Your task to perform on an android device: turn on the 12-hour format for clock Image 0: 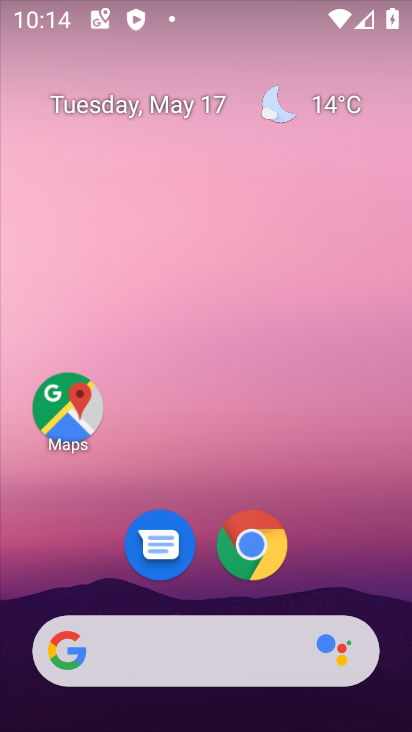
Step 0: drag from (296, 663) to (319, 55)
Your task to perform on an android device: turn on the 12-hour format for clock Image 1: 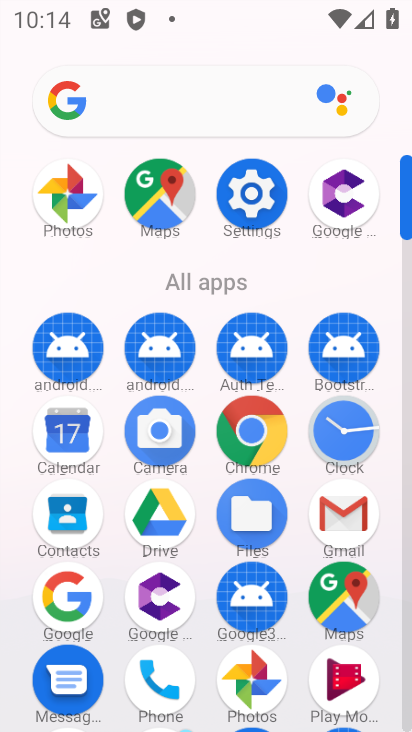
Step 1: click (363, 430)
Your task to perform on an android device: turn on the 12-hour format for clock Image 2: 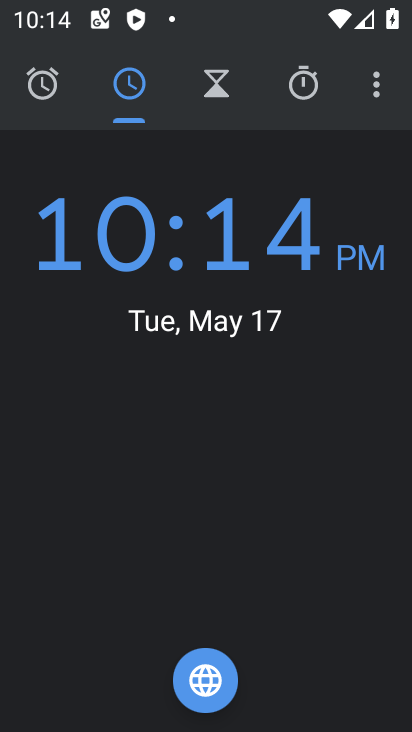
Step 2: click (379, 94)
Your task to perform on an android device: turn on the 12-hour format for clock Image 3: 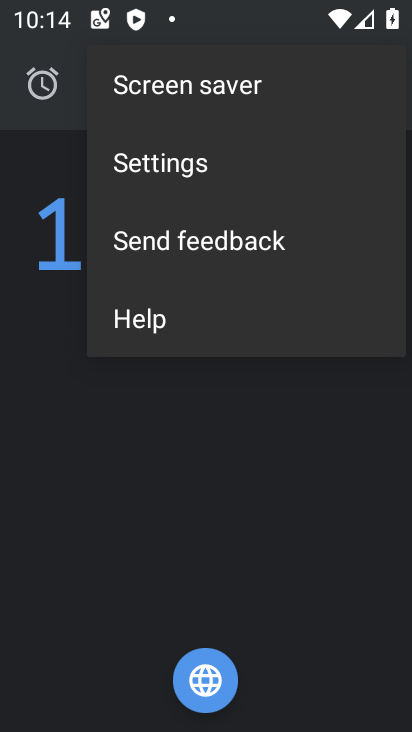
Step 3: click (217, 185)
Your task to perform on an android device: turn on the 12-hour format for clock Image 4: 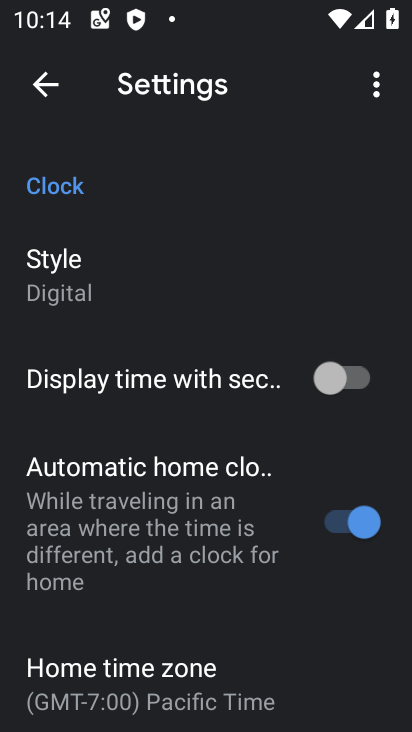
Step 4: drag from (162, 642) to (245, 330)
Your task to perform on an android device: turn on the 12-hour format for clock Image 5: 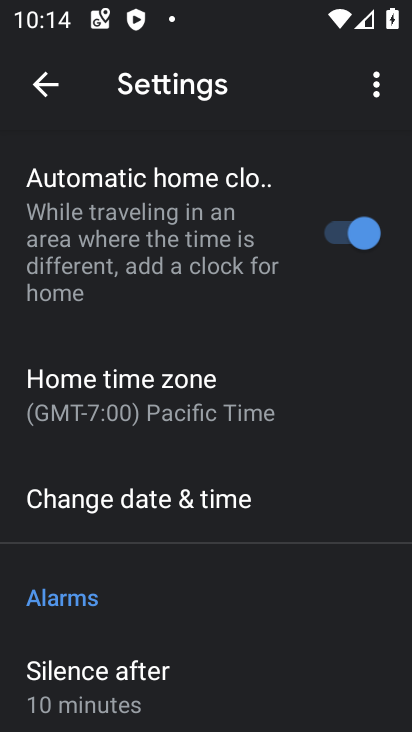
Step 5: click (217, 502)
Your task to perform on an android device: turn on the 12-hour format for clock Image 6: 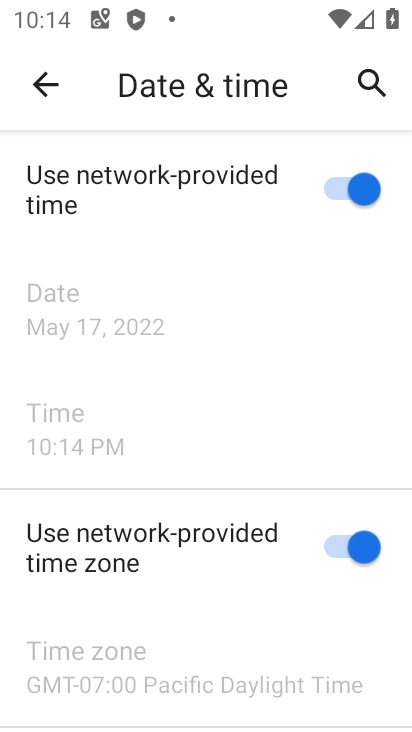
Step 6: drag from (268, 634) to (312, 184)
Your task to perform on an android device: turn on the 12-hour format for clock Image 7: 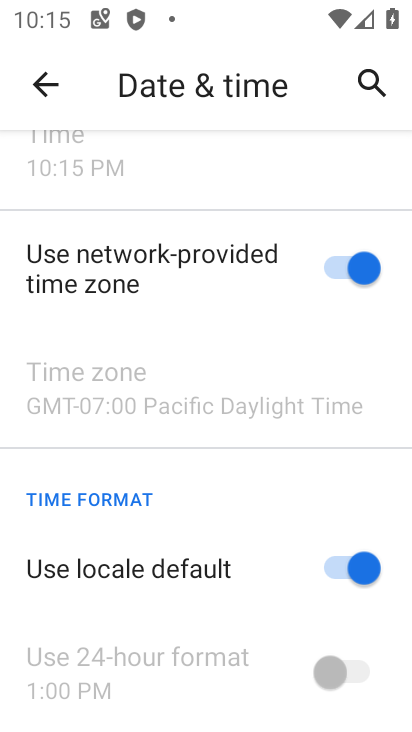
Step 7: drag from (292, 646) to (321, 374)
Your task to perform on an android device: turn on the 12-hour format for clock Image 8: 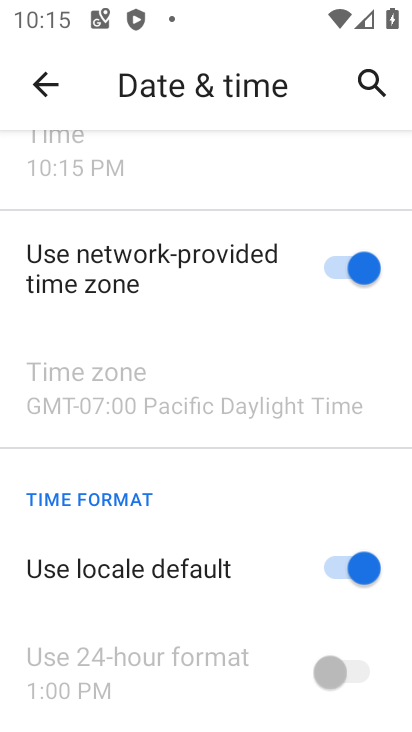
Step 8: click (345, 668)
Your task to perform on an android device: turn on the 12-hour format for clock Image 9: 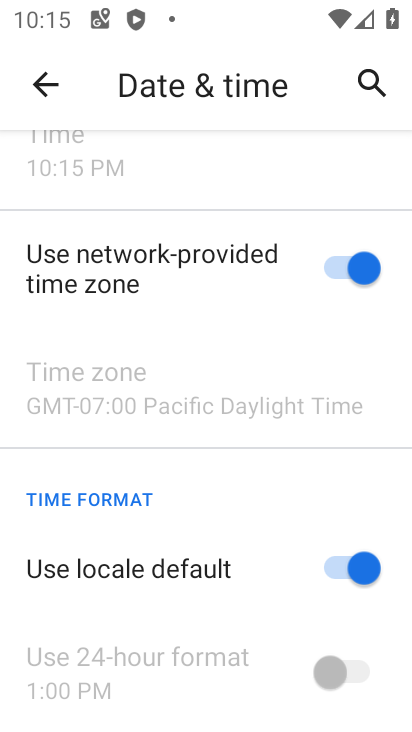
Step 9: click (360, 563)
Your task to perform on an android device: turn on the 12-hour format for clock Image 10: 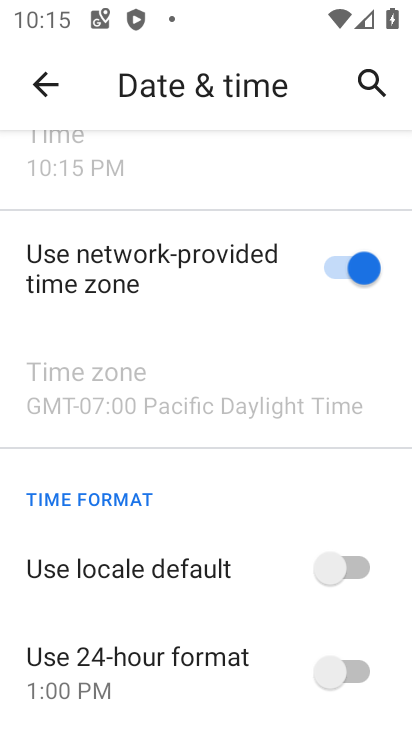
Step 10: task complete